Your task to perform on an android device: open app "LiveIn - Share Your Moment" (install if not already installed) Image 0: 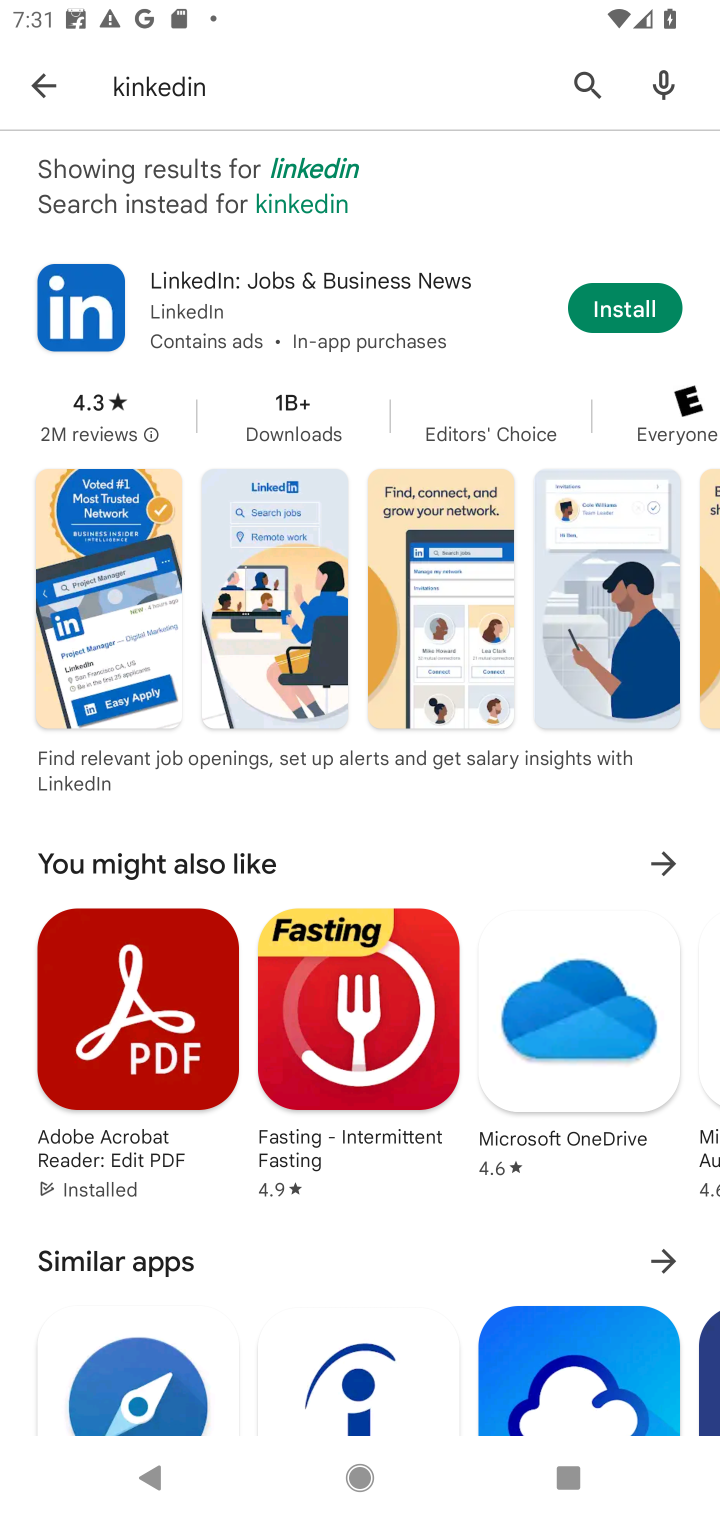
Step 0: click (567, 90)
Your task to perform on an android device: open app "LiveIn - Share Your Moment" (install if not already installed) Image 1: 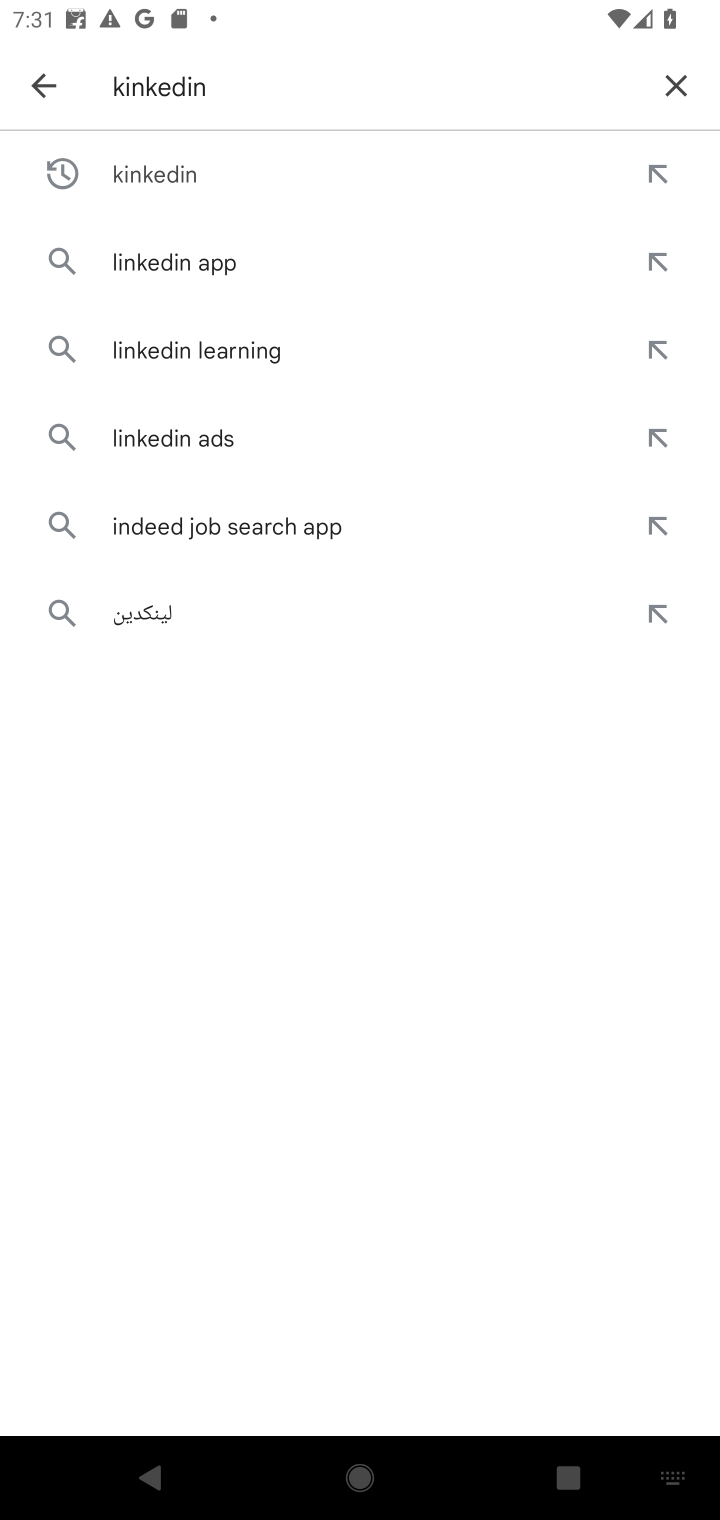
Step 1: click (667, 92)
Your task to perform on an android device: open app "LiveIn - Share Your Moment" (install if not already installed) Image 2: 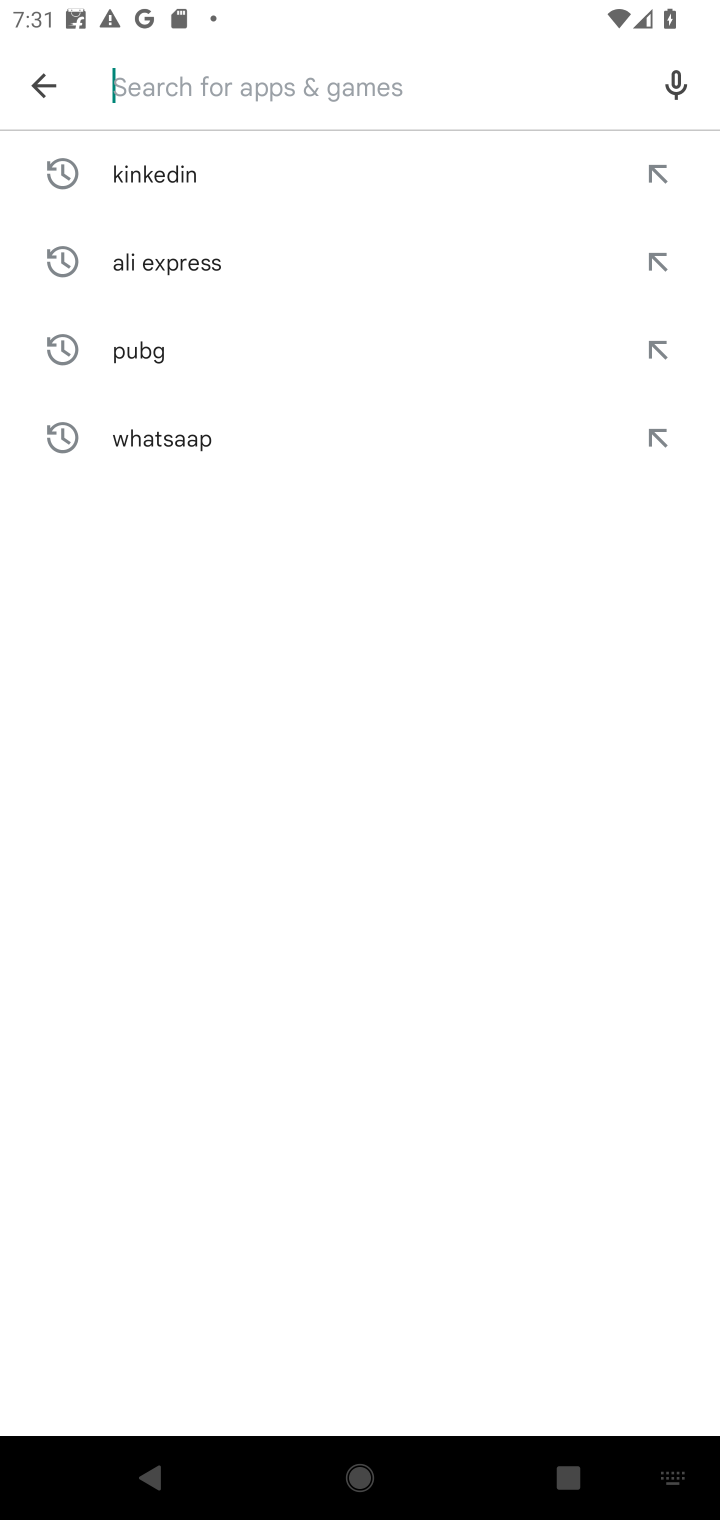
Step 2: type "livein"
Your task to perform on an android device: open app "LiveIn - Share Your Moment" (install if not already installed) Image 3: 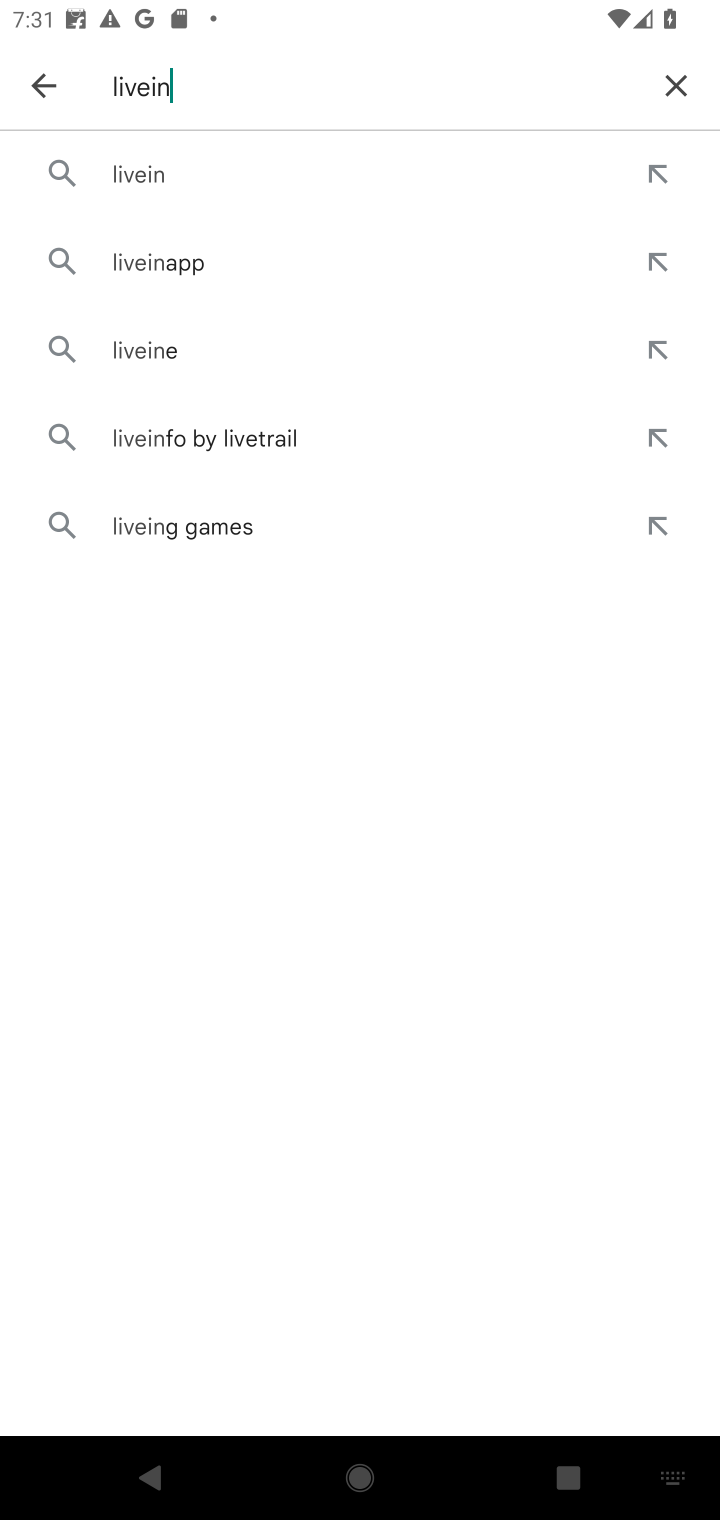
Step 3: click (118, 172)
Your task to perform on an android device: open app "LiveIn - Share Your Moment" (install if not already installed) Image 4: 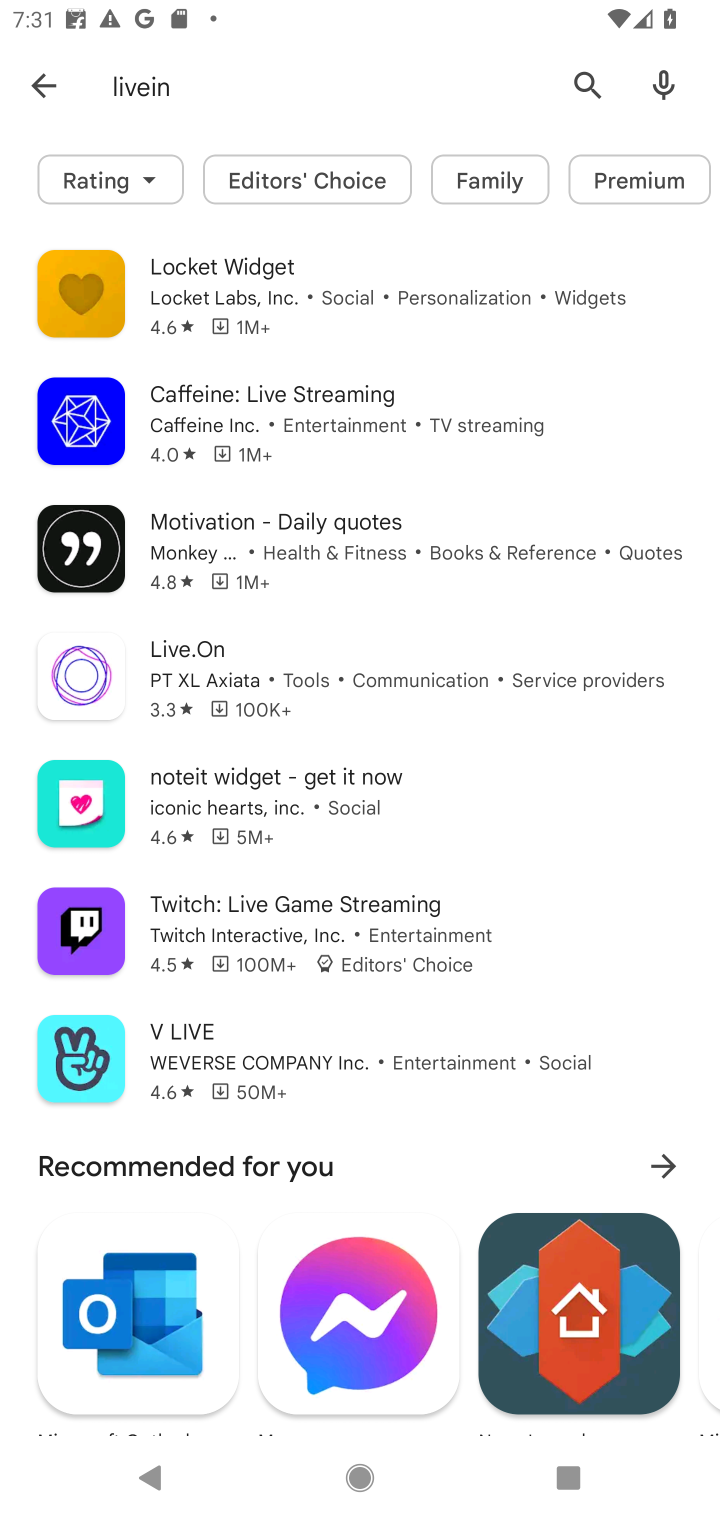
Step 4: task complete